Your task to perform on an android device: Open Reddit.com Image 0: 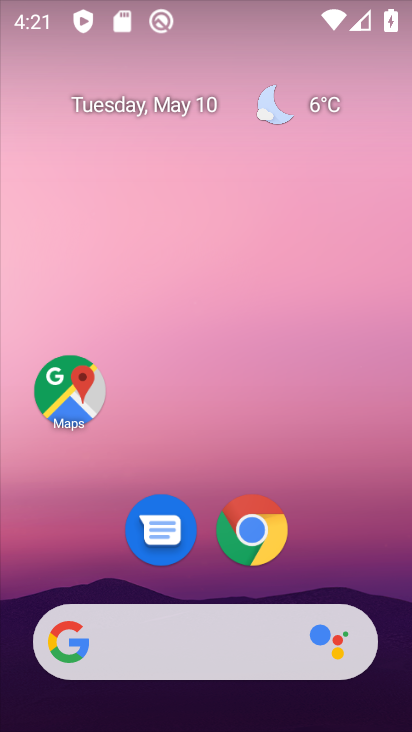
Step 0: drag from (271, 1) to (304, 414)
Your task to perform on an android device: Open Reddit.com Image 1: 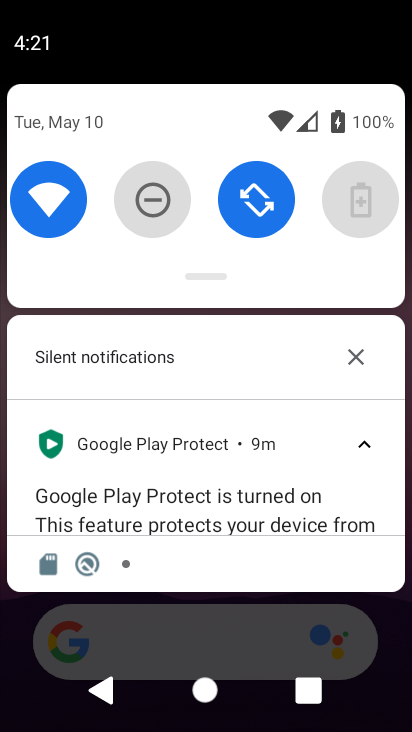
Step 1: press home button
Your task to perform on an android device: Open Reddit.com Image 2: 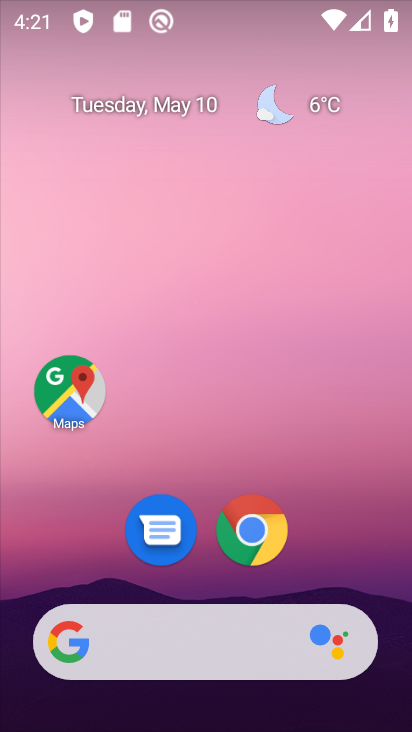
Step 2: click (235, 518)
Your task to perform on an android device: Open Reddit.com Image 3: 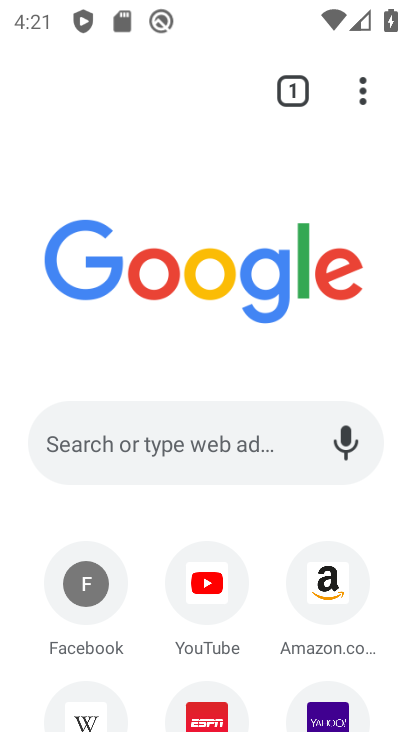
Step 3: click (184, 433)
Your task to perform on an android device: Open Reddit.com Image 4: 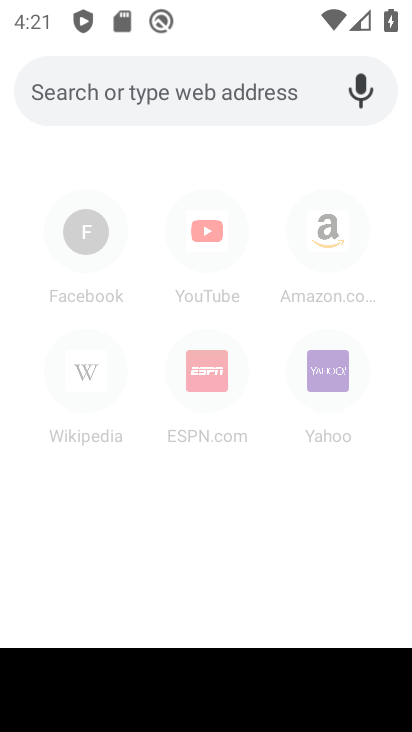
Step 4: type "reddit"
Your task to perform on an android device: Open Reddit.com Image 5: 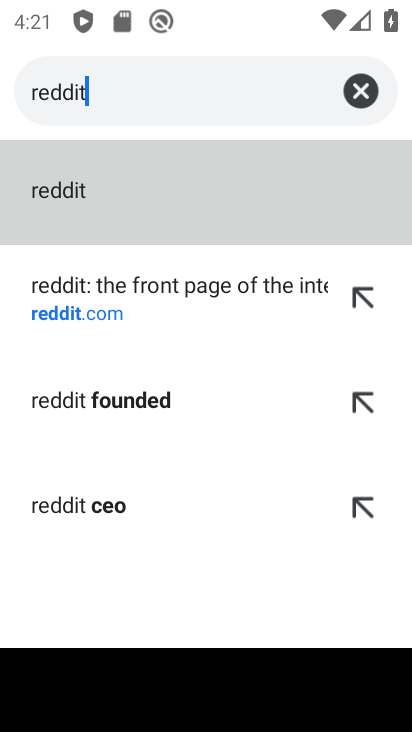
Step 5: click (40, 308)
Your task to perform on an android device: Open Reddit.com Image 6: 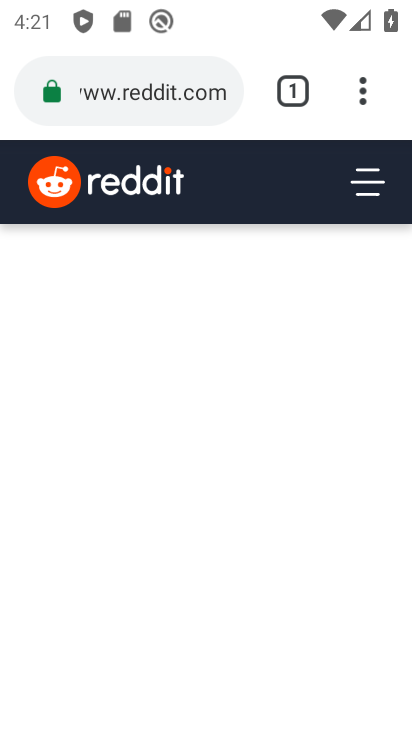
Step 6: task complete